Your task to perform on an android device: turn on bluetooth scan Image 0: 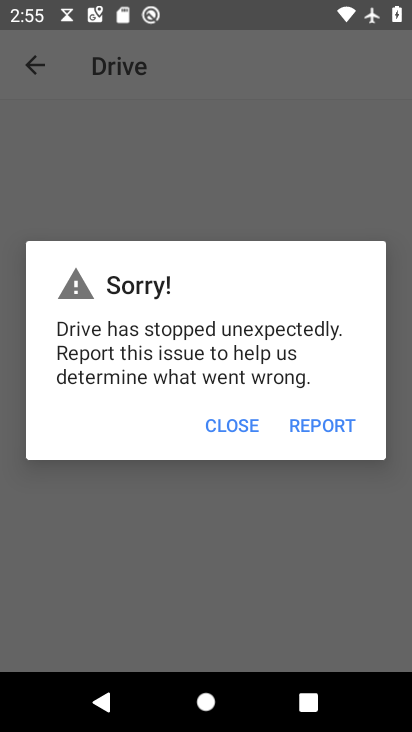
Step 0: press home button
Your task to perform on an android device: turn on bluetooth scan Image 1: 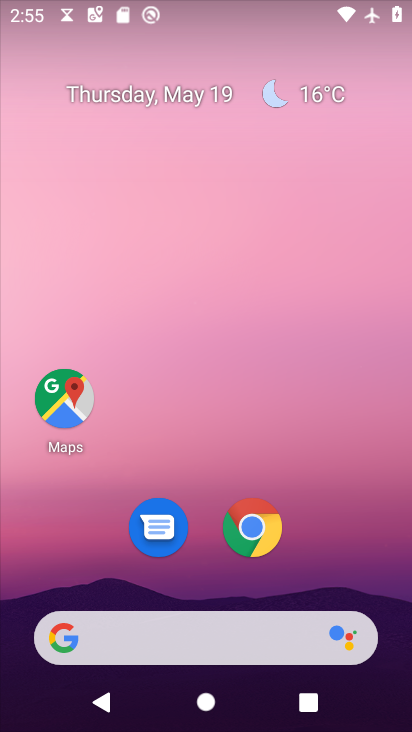
Step 1: drag from (346, 515) to (259, 31)
Your task to perform on an android device: turn on bluetooth scan Image 2: 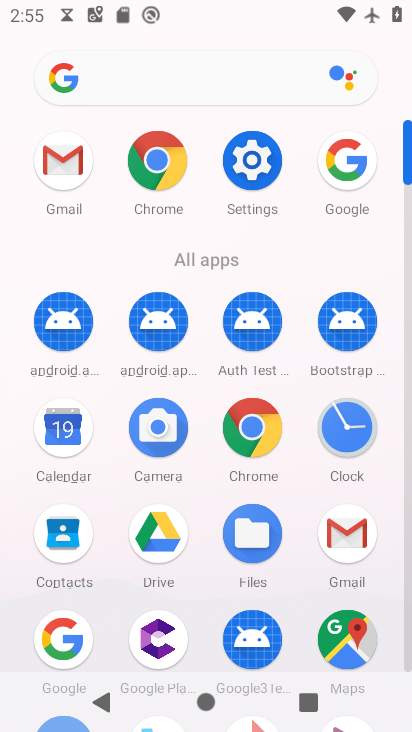
Step 2: click (263, 150)
Your task to perform on an android device: turn on bluetooth scan Image 3: 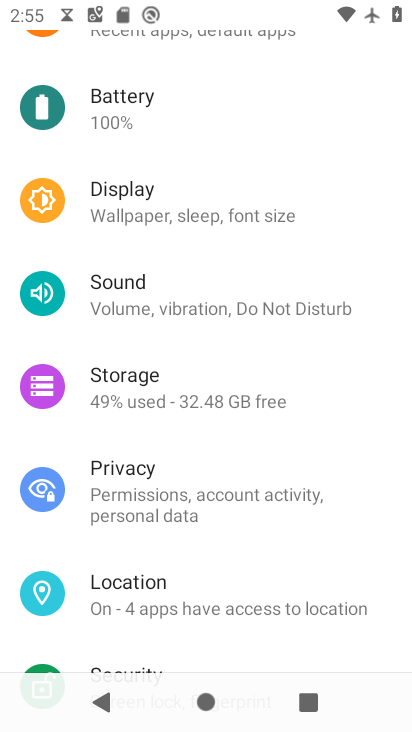
Step 3: click (261, 580)
Your task to perform on an android device: turn on bluetooth scan Image 4: 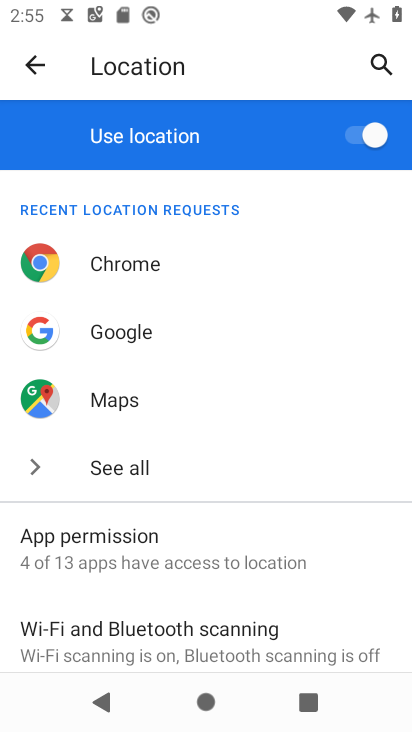
Step 4: drag from (255, 601) to (240, 333)
Your task to perform on an android device: turn on bluetooth scan Image 5: 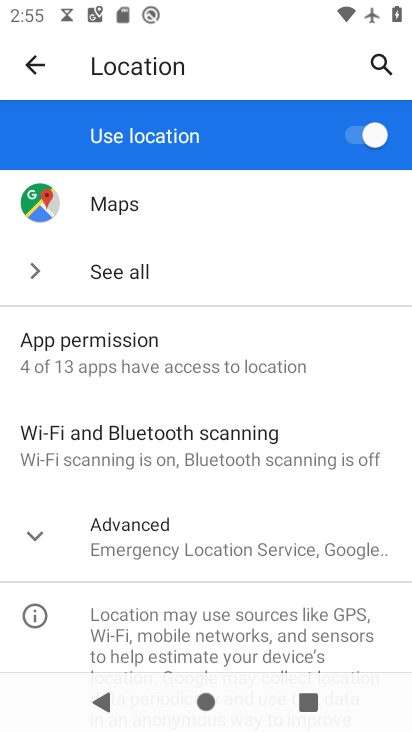
Step 5: click (244, 457)
Your task to perform on an android device: turn on bluetooth scan Image 6: 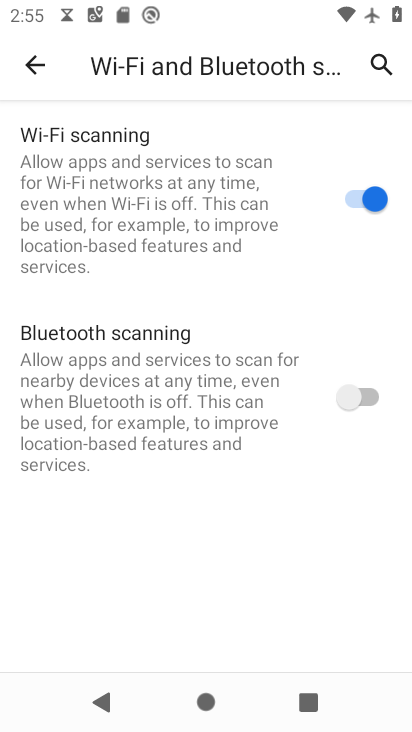
Step 6: click (373, 397)
Your task to perform on an android device: turn on bluetooth scan Image 7: 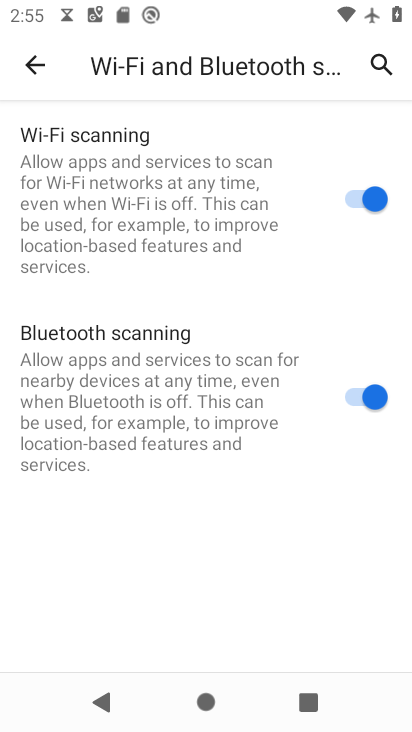
Step 7: task complete